Your task to perform on an android device: Go to Wikipedia Image 0: 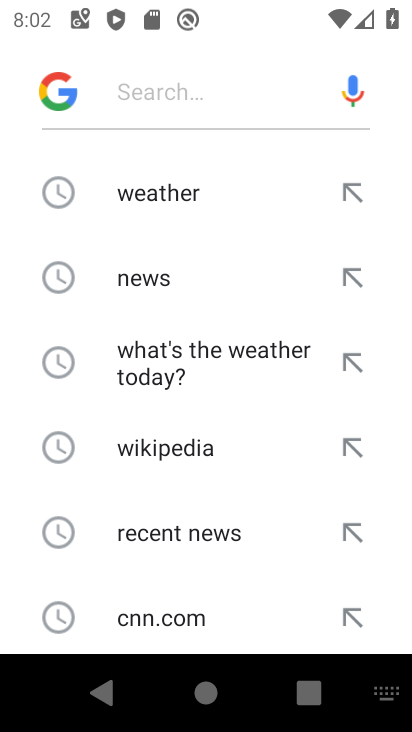
Step 0: press home button
Your task to perform on an android device: Go to Wikipedia Image 1: 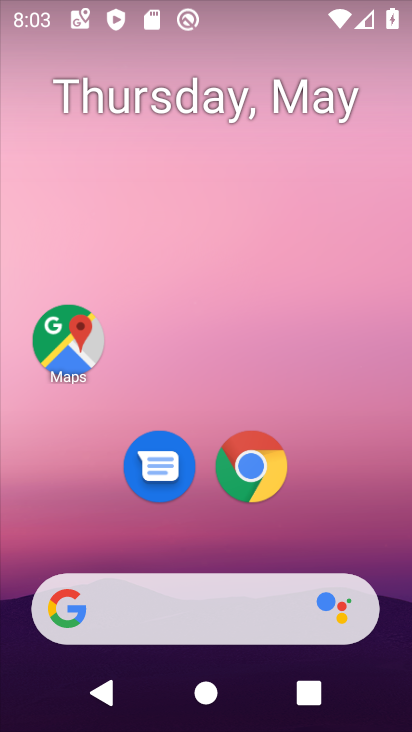
Step 1: click (243, 472)
Your task to perform on an android device: Go to Wikipedia Image 2: 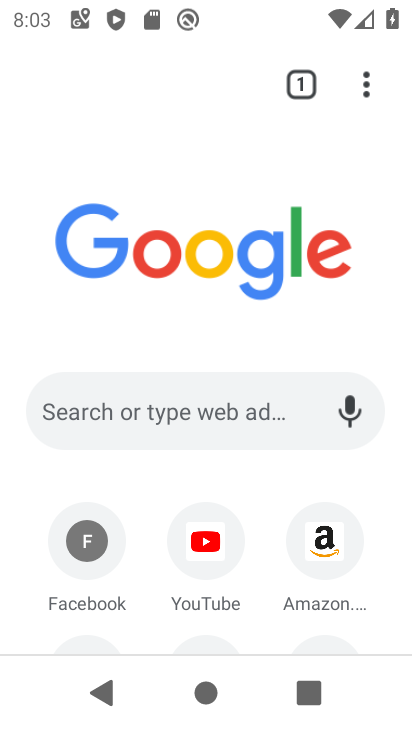
Step 2: drag from (391, 560) to (367, 313)
Your task to perform on an android device: Go to Wikipedia Image 3: 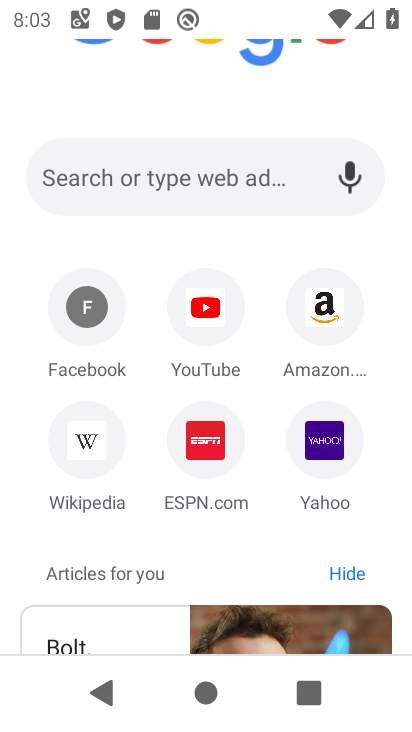
Step 3: click (90, 440)
Your task to perform on an android device: Go to Wikipedia Image 4: 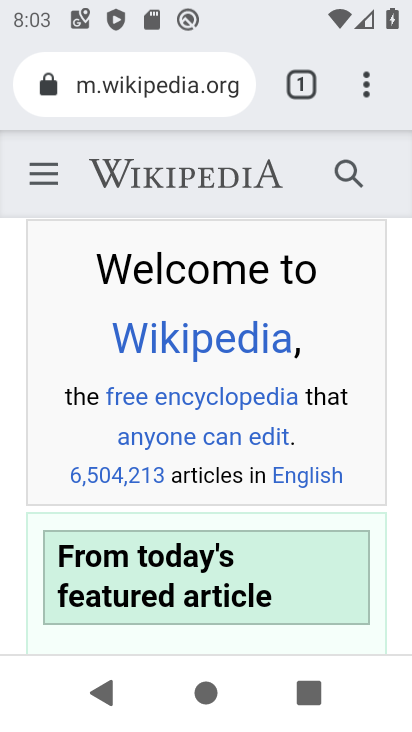
Step 4: task complete